Your task to perform on an android device: Go to location settings Image 0: 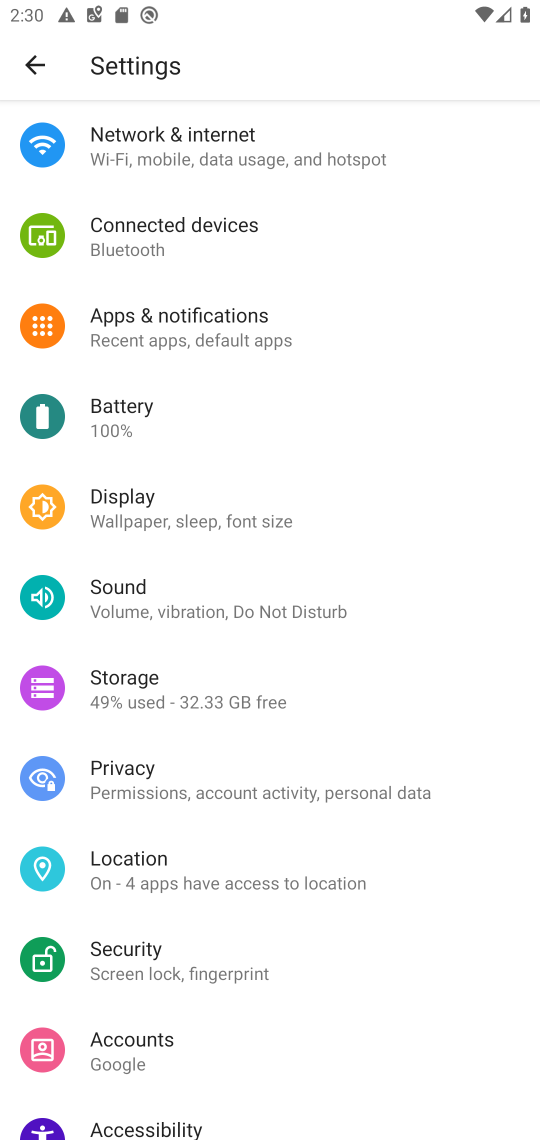
Step 0: press home button
Your task to perform on an android device: Go to location settings Image 1: 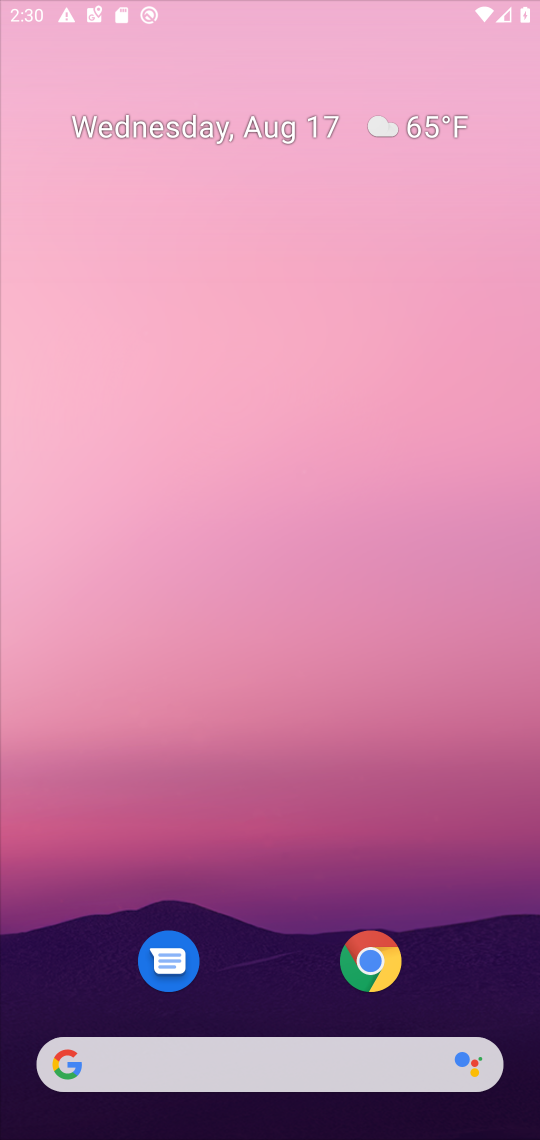
Step 1: drag from (306, 1059) to (399, 106)
Your task to perform on an android device: Go to location settings Image 2: 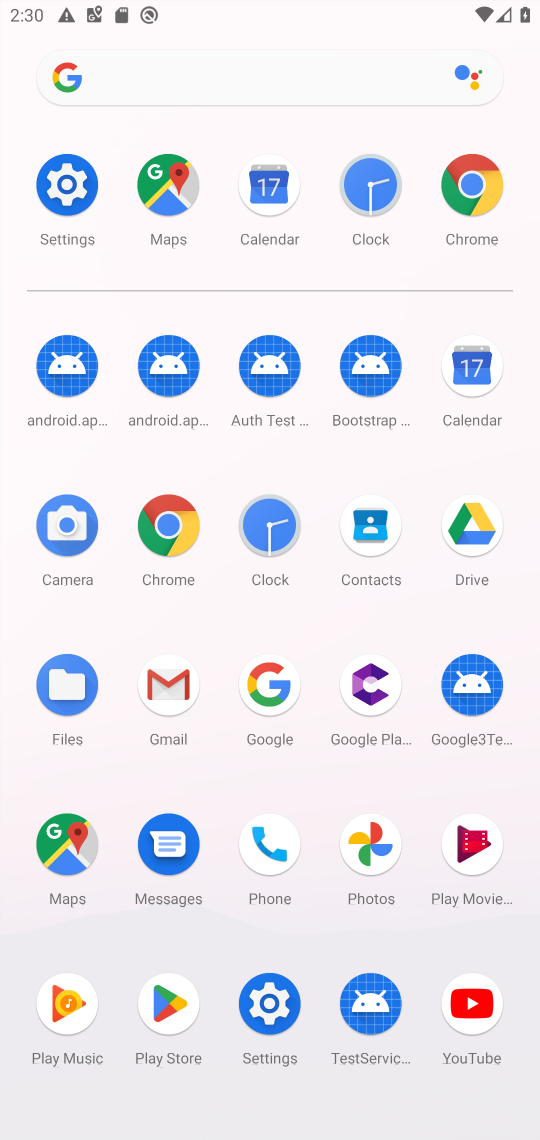
Step 2: click (90, 218)
Your task to perform on an android device: Go to location settings Image 3: 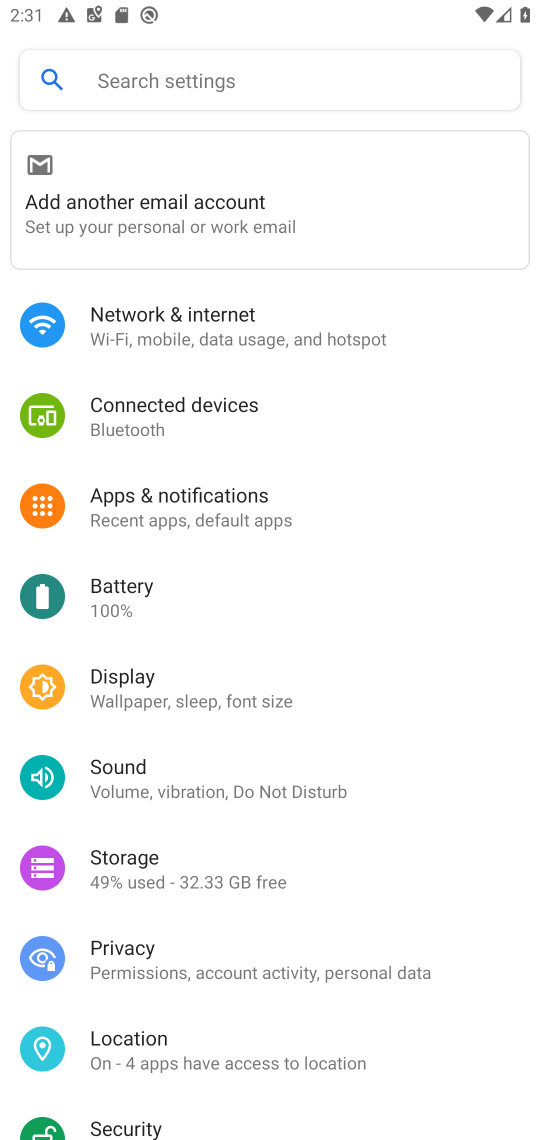
Step 3: click (225, 1050)
Your task to perform on an android device: Go to location settings Image 4: 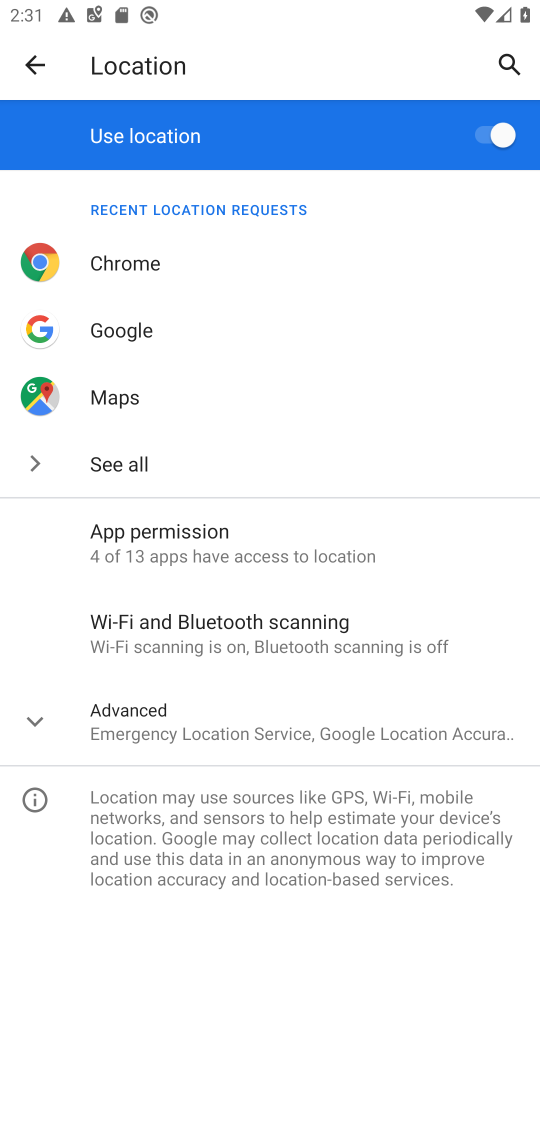
Step 4: task complete